Your task to perform on an android device: change alarm snooze length Image 0: 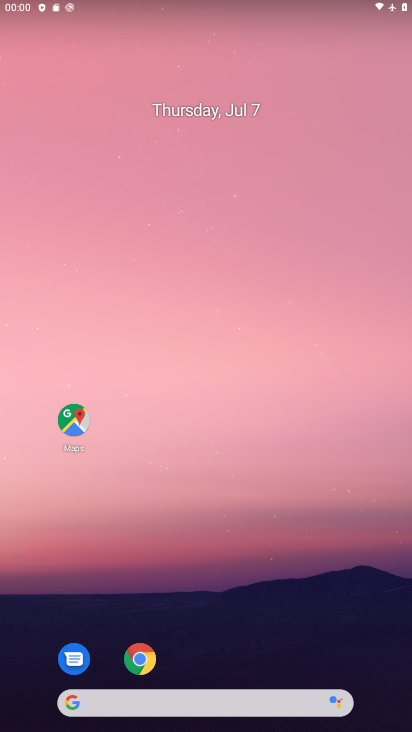
Step 0: drag from (233, 637) to (410, 175)
Your task to perform on an android device: change alarm snooze length Image 1: 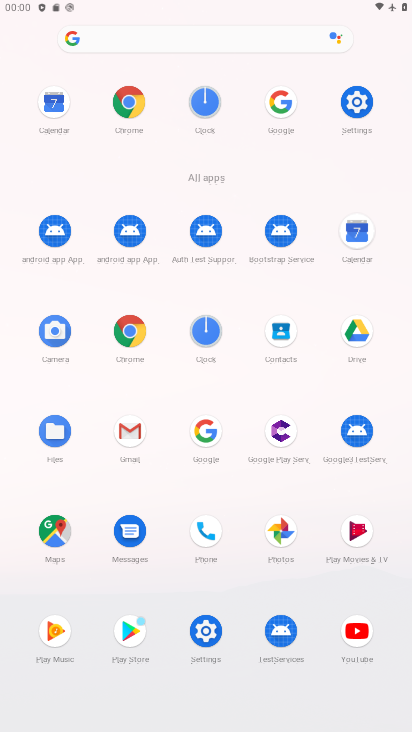
Step 1: click (202, 324)
Your task to perform on an android device: change alarm snooze length Image 2: 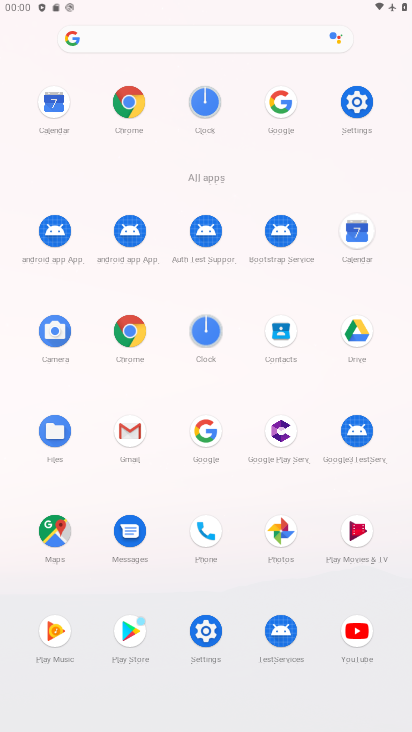
Step 2: click (203, 325)
Your task to perform on an android device: change alarm snooze length Image 3: 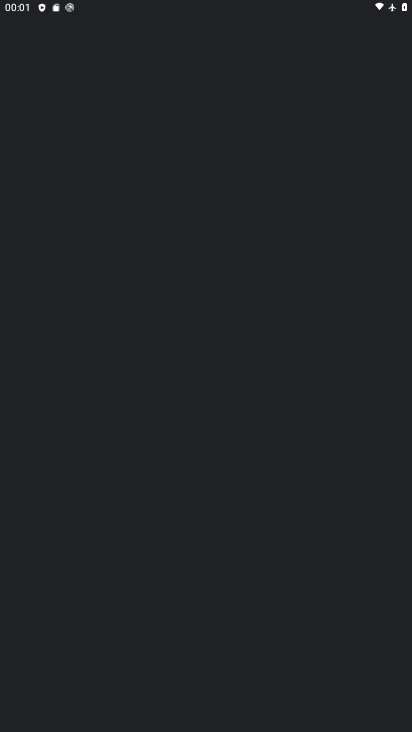
Step 3: click (204, 334)
Your task to perform on an android device: change alarm snooze length Image 4: 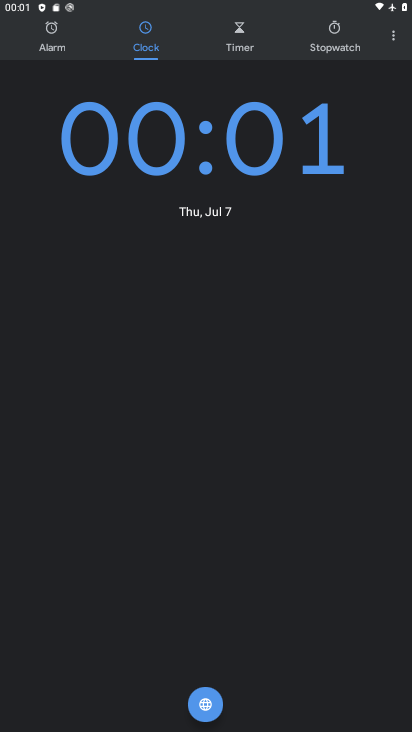
Step 4: click (209, 335)
Your task to perform on an android device: change alarm snooze length Image 5: 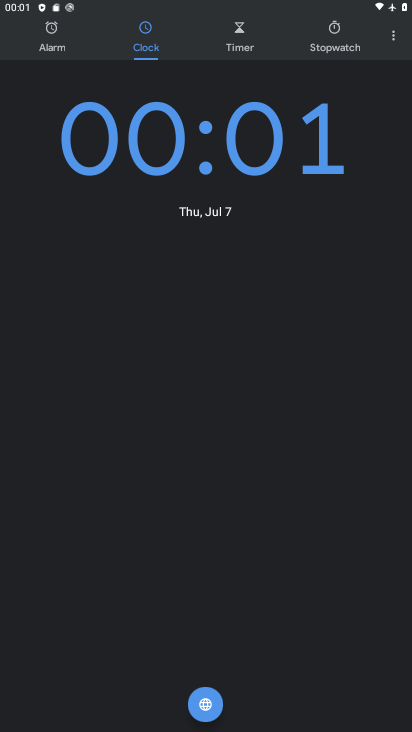
Step 5: click (398, 32)
Your task to perform on an android device: change alarm snooze length Image 6: 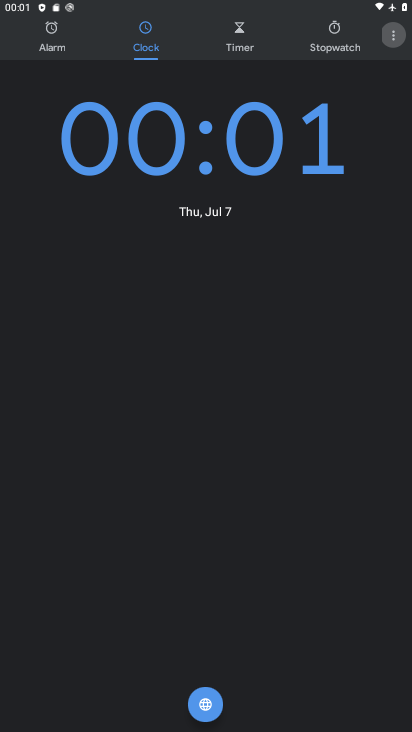
Step 6: click (397, 32)
Your task to perform on an android device: change alarm snooze length Image 7: 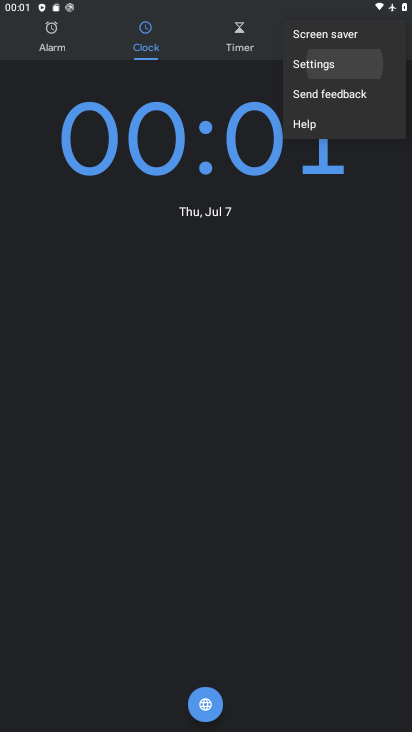
Step 7: click (399, 33)
Your task to perform on an android device: change alarm snooze length Image 8: 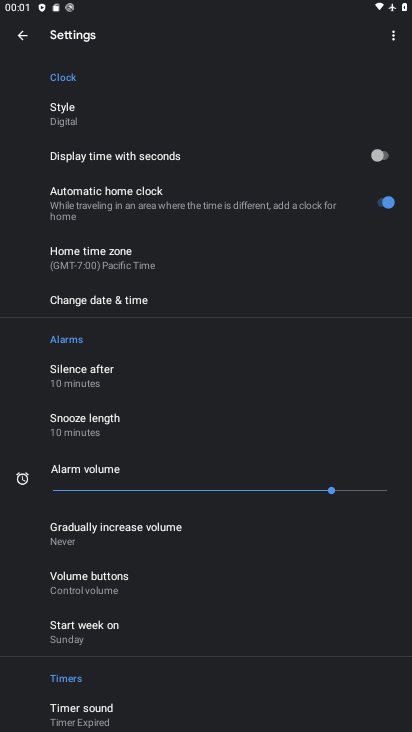
Step 8: click (80, 428)
Your task to perform on an android device: change alarm snooze length Image 9: 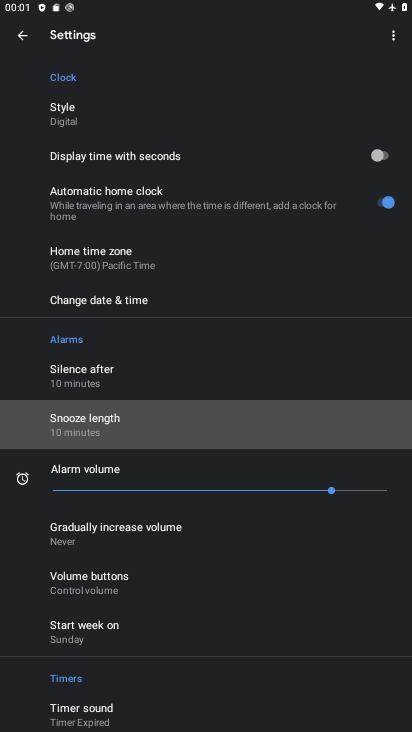
Step 9: click (80, 428)
Your task to perform on an android device: change alarm snooze length Image 10: 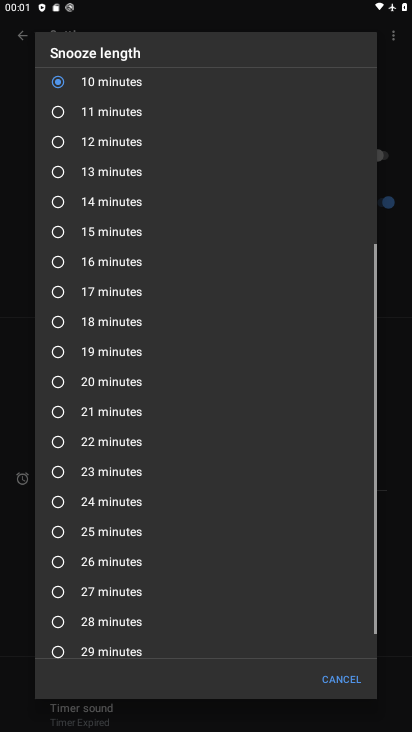
Step 10: click (81, 429)
Your task to perform on an android device: change alarm snooze length Image 11: 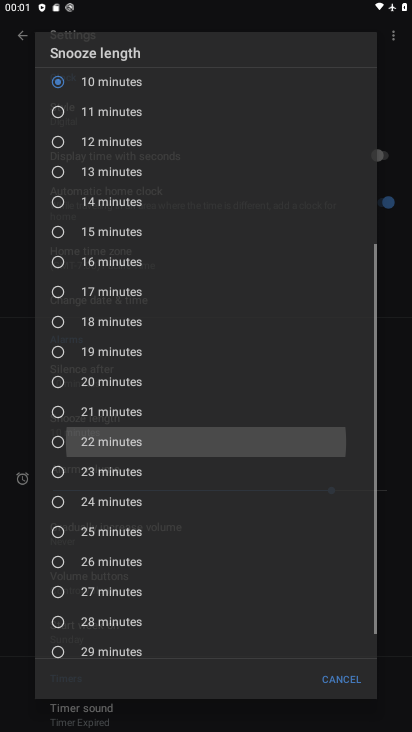
Step 11: click (82, 430)
Your task to perform on an android device: change alarm snooze length Image 12: 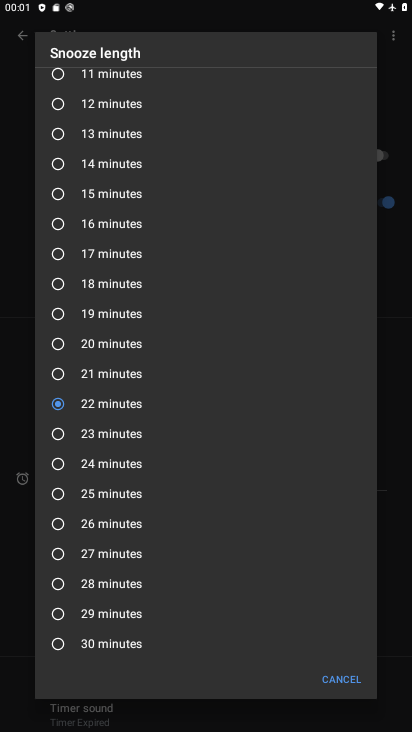
Step 12: click (55, 106)
Your task to perform on an android device: change alarm snooze length Image 13: 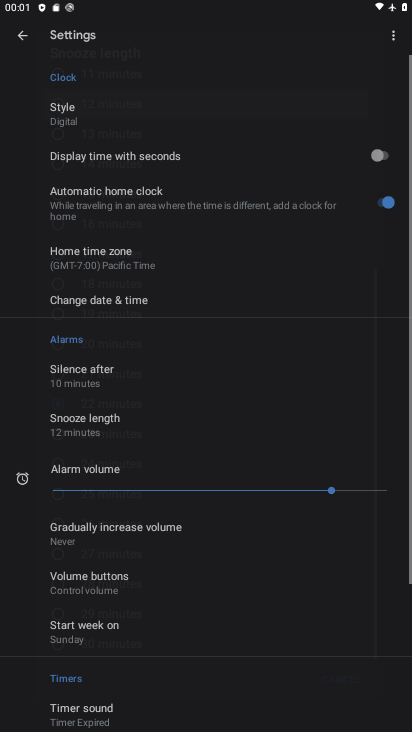
Step 13: click (58, 108)
Your task to perform on an android device: change alarm snooze length Image 14: 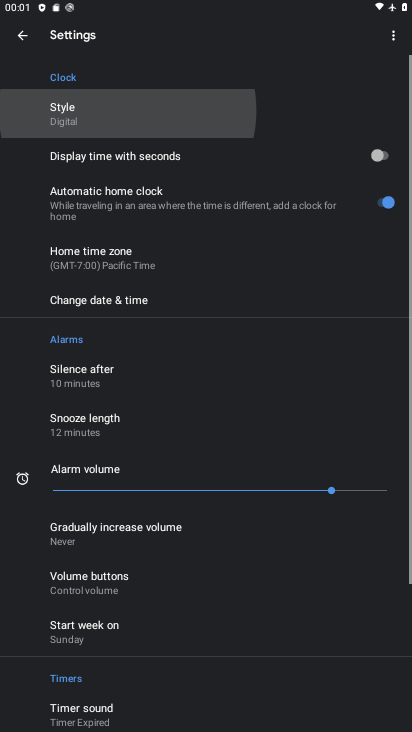
Step 14: click (58, 108)
Your task to perform on an android device: change alarm snooze length Image 15: 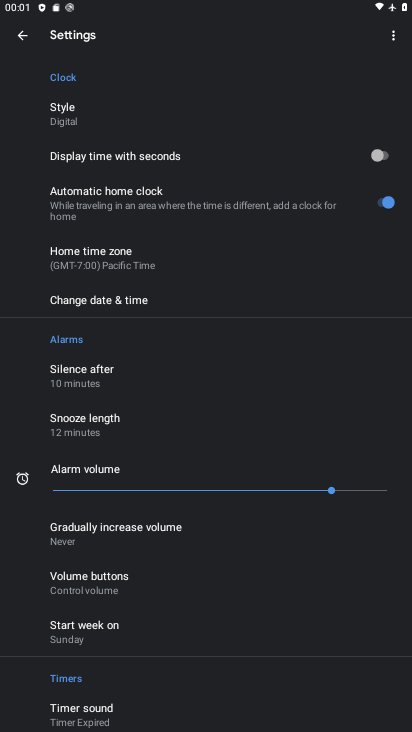
Step 15: task complete